Your task to perform on an android device: When is my next appointment? Image 0: 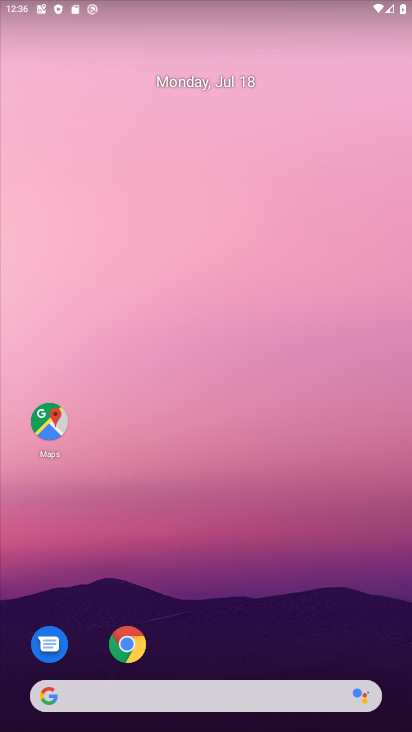
Step 0: drag from (210, 670) to (160, 203)
Your task to perform on an android device: When is my next appointment? Image 1: 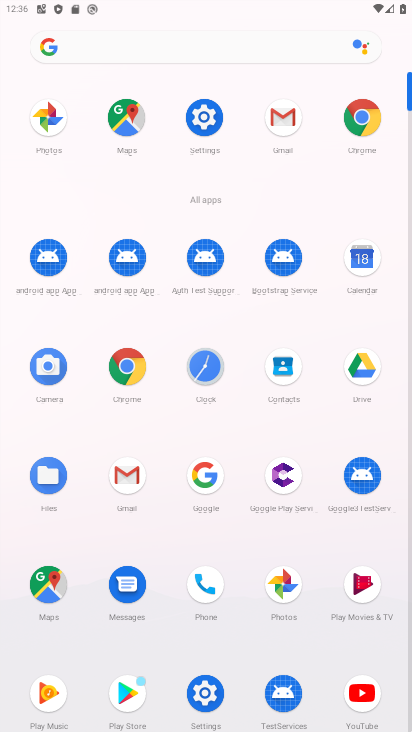
Step 1: click (352, 272)
Your task to perform on an android device: When is my next appointment? Image 2: 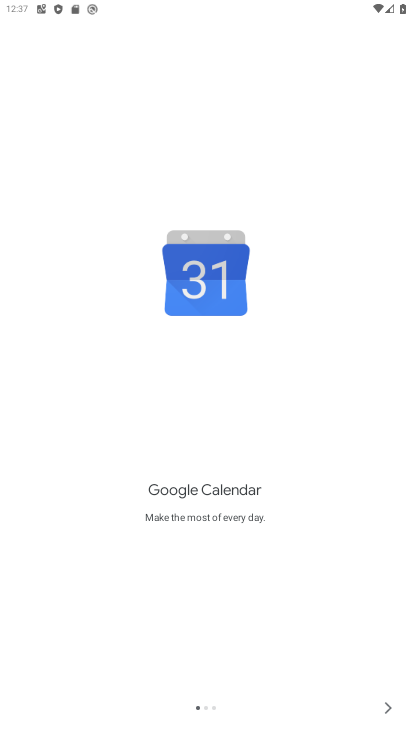
Step 2: click (394, 708)
Your task to perform on an android device: When is my next appointment? Image 3: 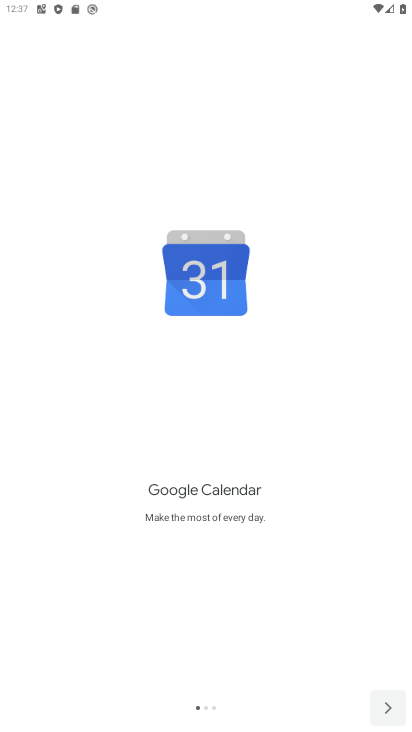
Step 3: click (394, 708)
Your task to perform on an android device: When is my next appointment? Image 4: 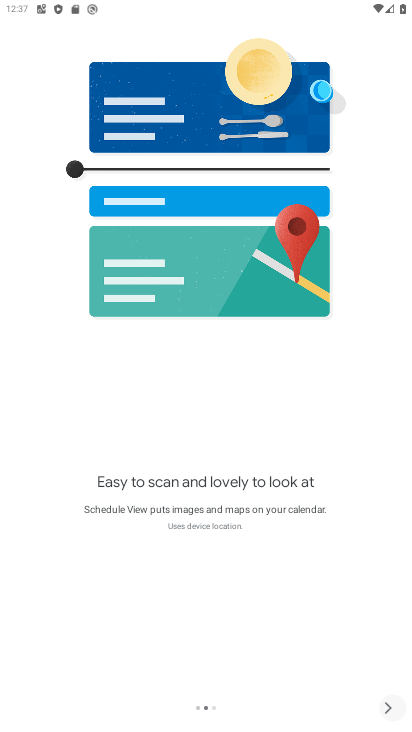
Step 4: click (394, 708)
Your task to perform on an android device: When is my next appointment? Image 5: 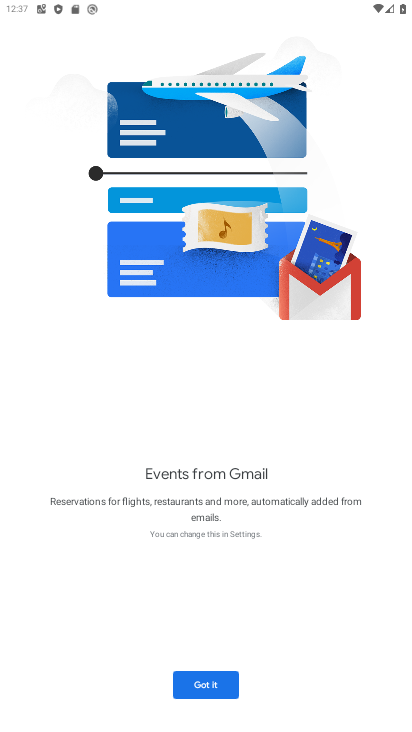
Step 5: click (206, 690)
Your task to perform on an android device: When is my next appointment? Image 6: 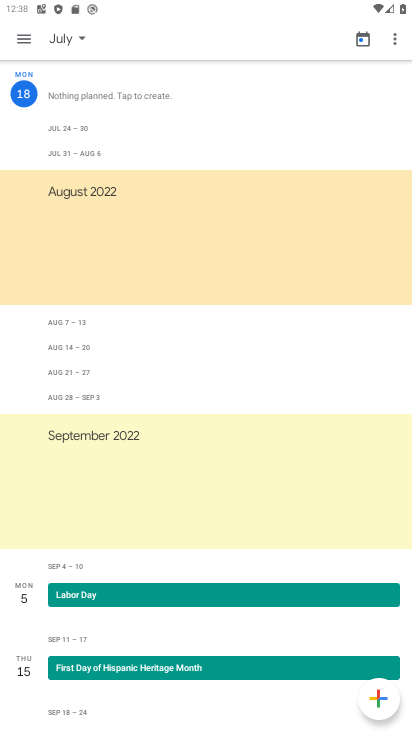
Step 6: task complete